Your task to perform on an android device: toggle pop-ups in chrome Image 0: 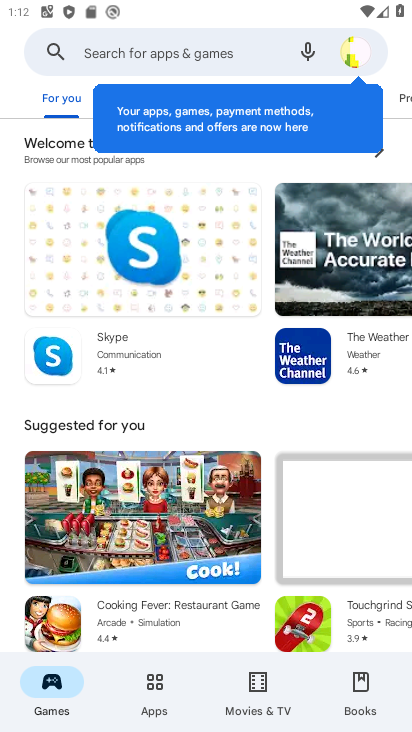
Step 0: drag from (19, 257) to (369, 252)
Your task to perform on an android device: toggle pop-ups in chrome Image 1: 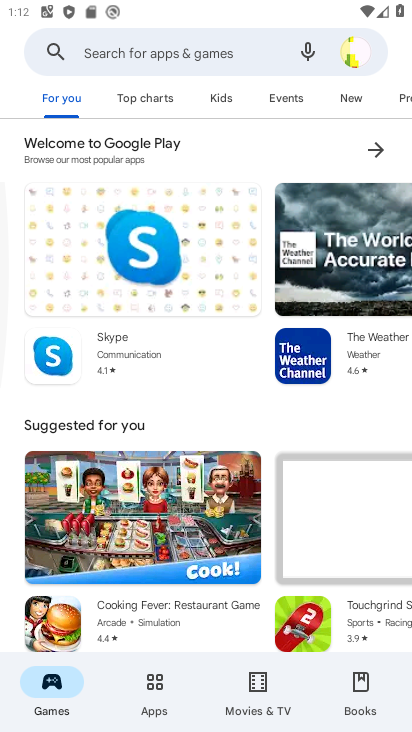
Step 1: press home button
Your task to perform on an android device: toggle pop-ups in chrome Image 2: 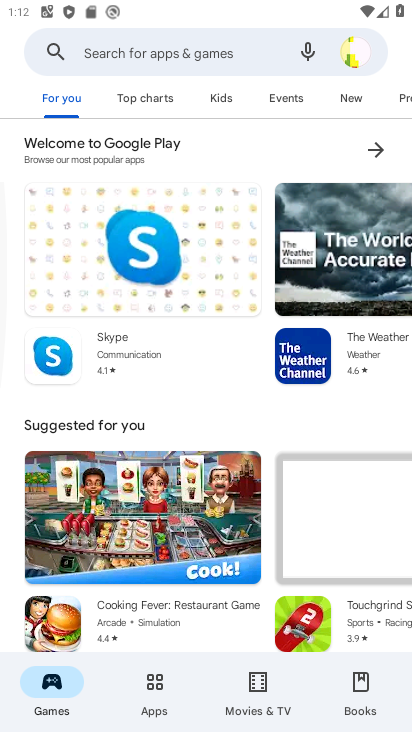
Step 2: click (375, 307)
Your task to perform on an android device: toggle pop-ups in chrome Image 3: 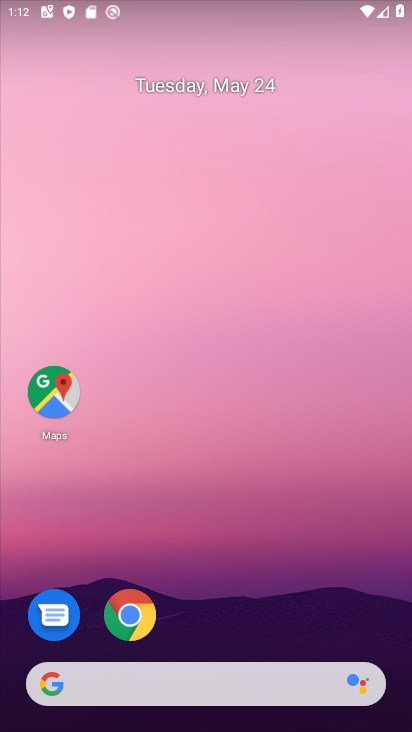
Step 3: drag from (14, 331) to (396, 330)
Your task to perform on an android device: toggle pop-ups in chrome Image 4: 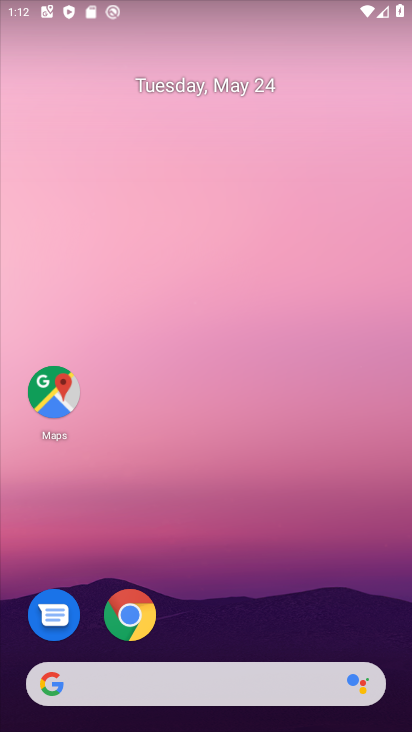
Step 4: drag from (9, 309) to (394, 309)
Your task to perform on an android device: toggle pop-ups in chrome Image 5: 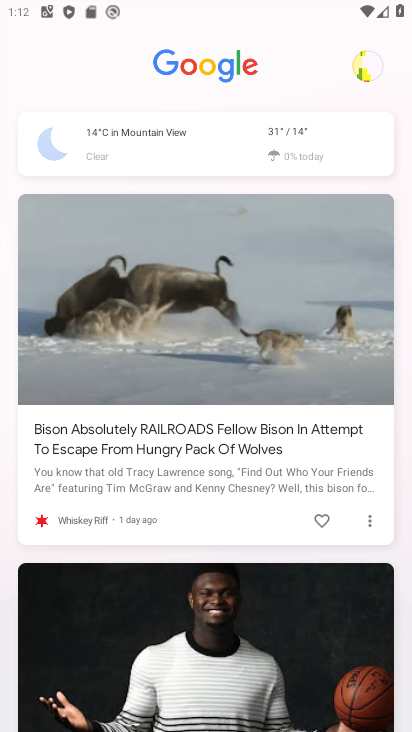
Step 5: press back button
Your task to perform on an android device: toggle pop-ups in chrome Image 6: 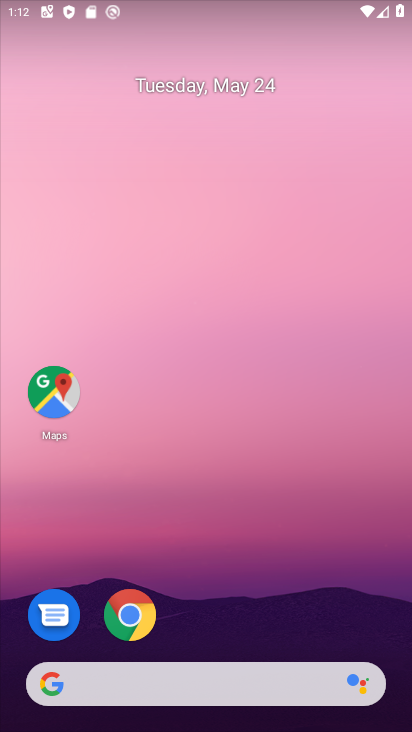
Step 6: click (133, 612)
Your task to perform on an android device: toggle pop-ups in chrome Image 7: 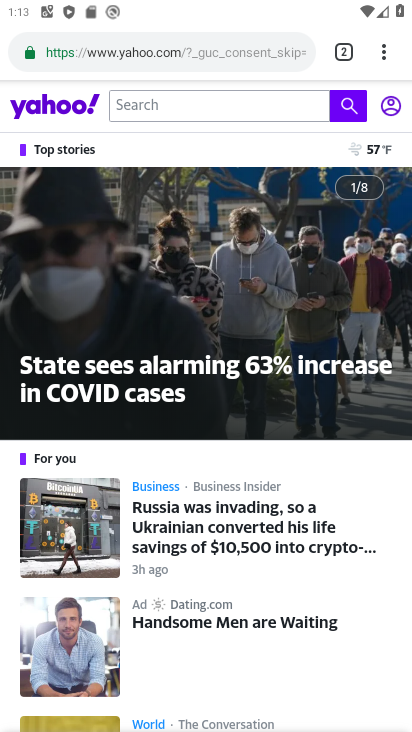
Step 7: click (376, 51)
Your task to perform on an android device: toggle pop-ups in chrome Image 8: 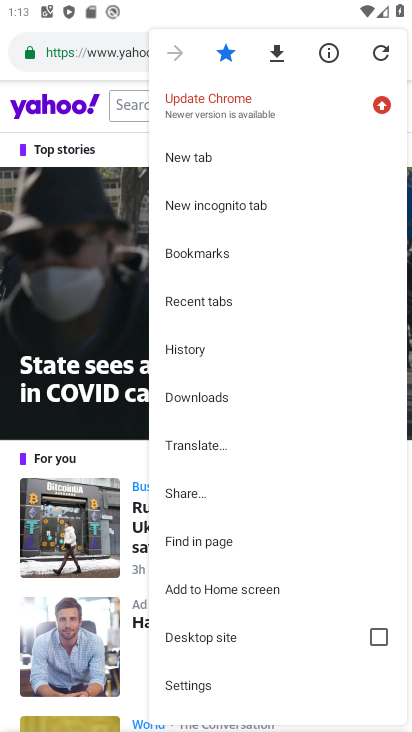
Step 8: click (222, 682)
Your task to perform on an android device: toggle pop-ups in chrome Image 9: 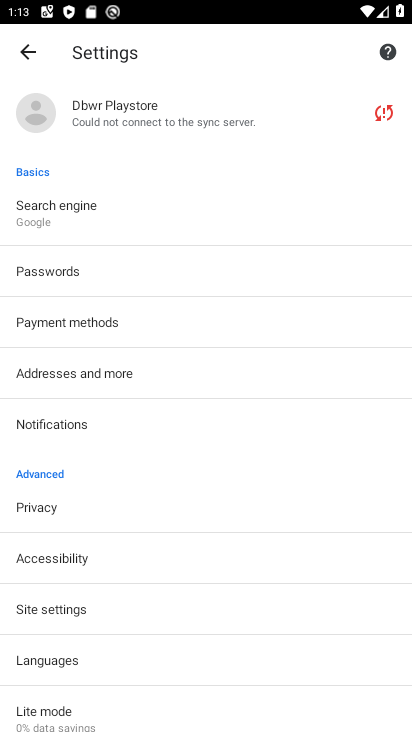
Step 9: drag from (125, 669) to (137, 161)
Your task to perform on an android device: toggle pop-ups in chrome Image 10: 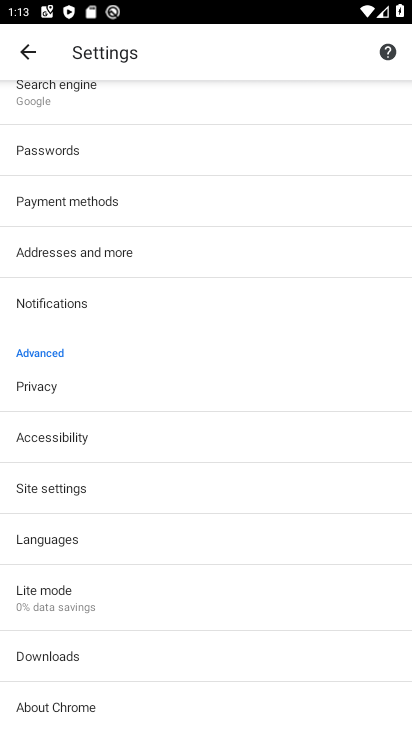
Step 10: click (102, 486)
Your task to perform on an android device: toggle pop-ups in chrome Image 11: 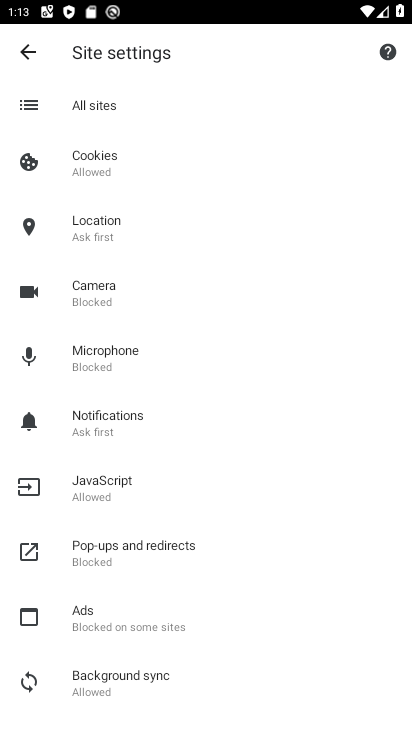
Step 11: click (129, 549)
Your task to perform on an android device: toggle pop-ups in chrome Image 12: 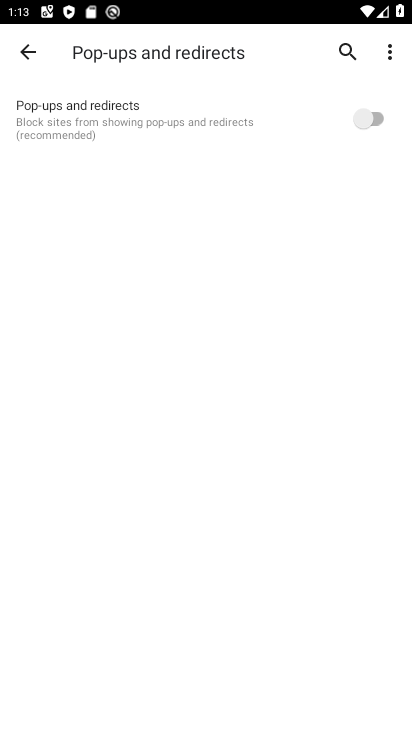
Step 12: click (368, 110)
Your task to perform on an android device: toggle pop-ups in chrome Image 13: 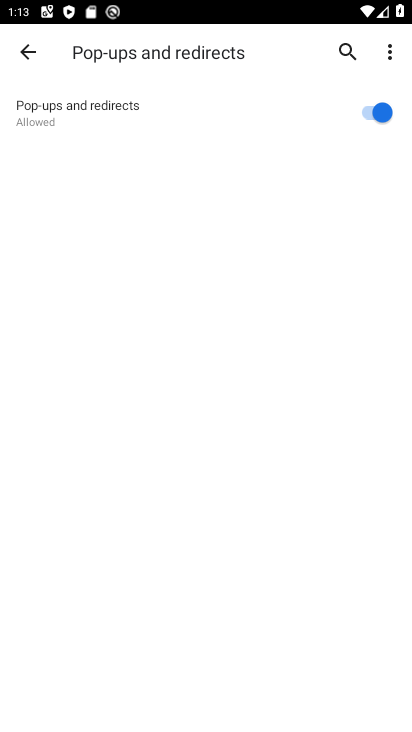
Step 13: task complete